Your task to perform on an android device: Go to eBay Image 0: 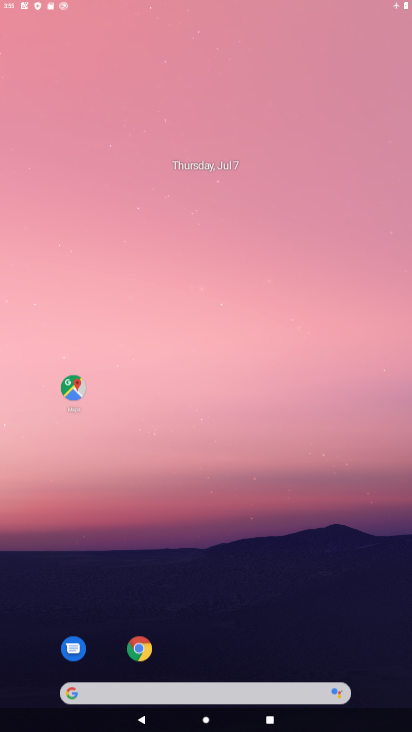
Step 0: drag from (348, 691) to (114, 28)
Your task to perform on an android device: Go to eBay Image 1: 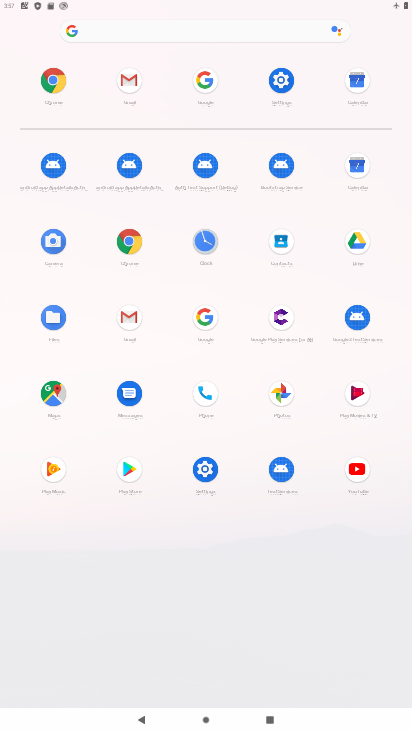
Step 1: click (195, 84)
Your task to perform on an android device: Go to eBay Image 2: 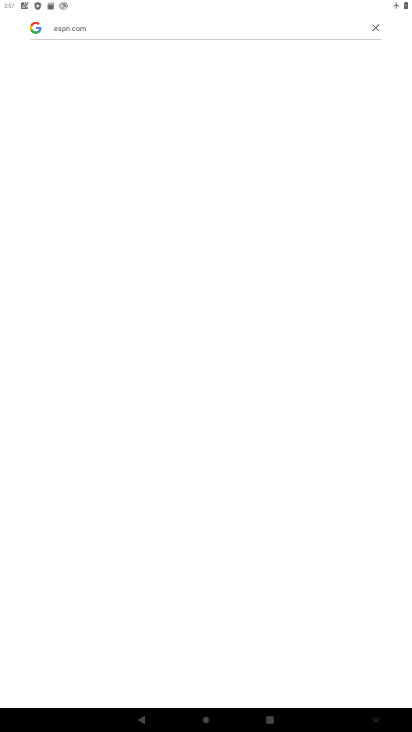
Step 2: press back button
Your task to perform on an android device: Go to eBay Image 3: 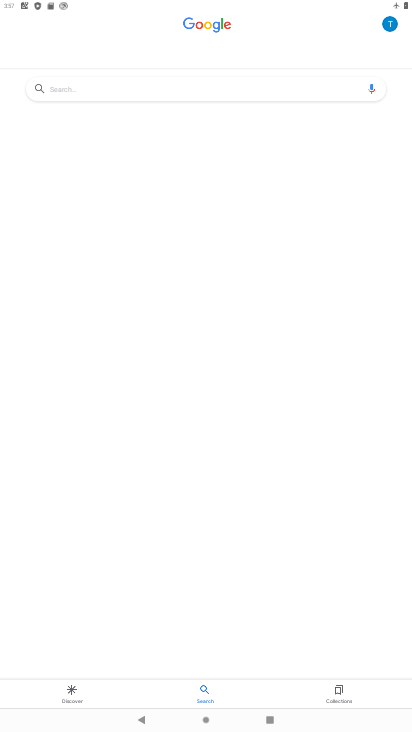
Step 3: click (118, 83)
Your task to perform on an android device: Go to eBay Image 4: 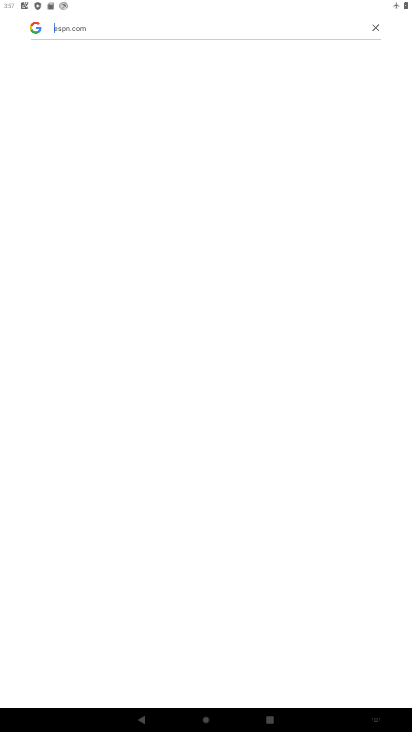
Step 4: click (375, 31)
Your task to perform on an android device: Go to eBay Image 5: 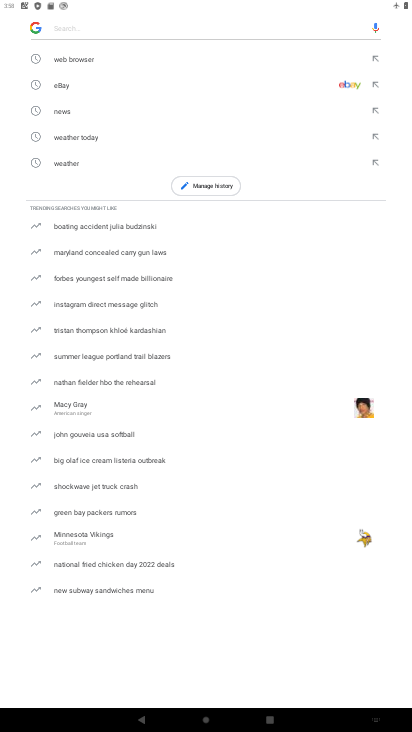
Step 5: type "ebay"
Your task to perform on an android device: Go to eBay Image 6: 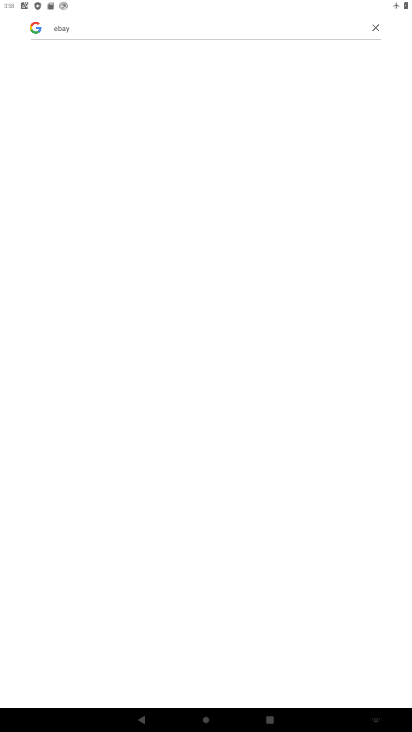
Step 6: task complete